Your task to perform on an android device: toggle wifi Image 0: 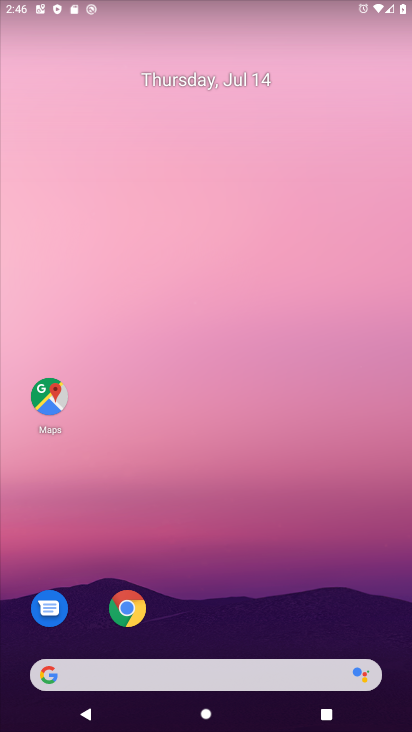
Step 0: drag from (247, 718) to (251, 79)
Your task to perform on an android device: toggle wifi Image 1: 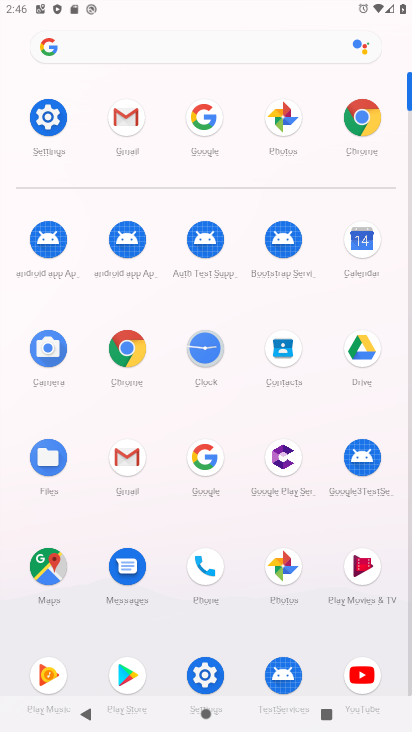
Step 1: click (45, 114)
Your task to perform on an android device: toggle wifi Image 2: 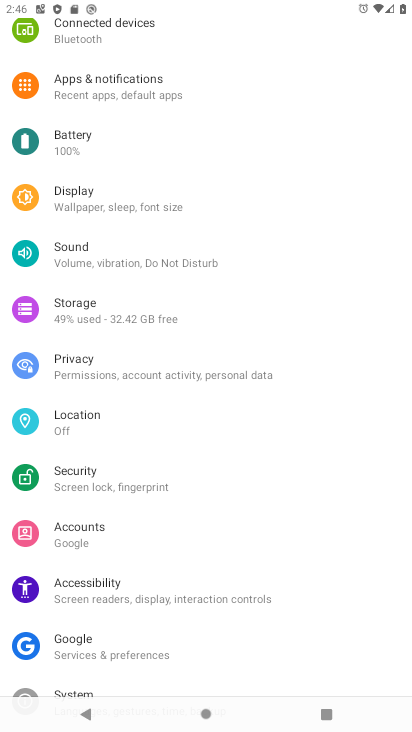
Step 2: drag from (122, 125) to (122, 430)
Your task to perform on an android device: toggle wifi Image 3: 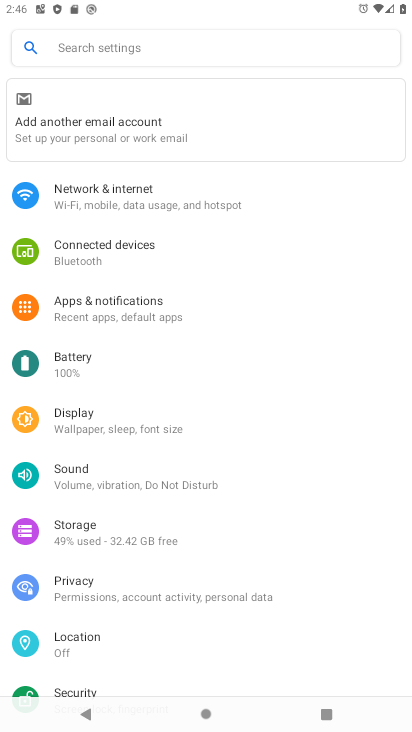
Step 3: click (112, 193)
Your task to perform on an android device: toggle wifi Image 4: 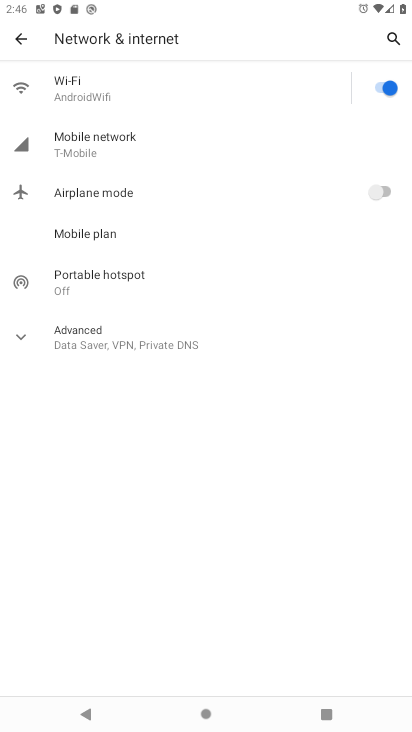
Step 4: click (382, 83)
Your task to perform on an android device: toggle wifi Image 5: 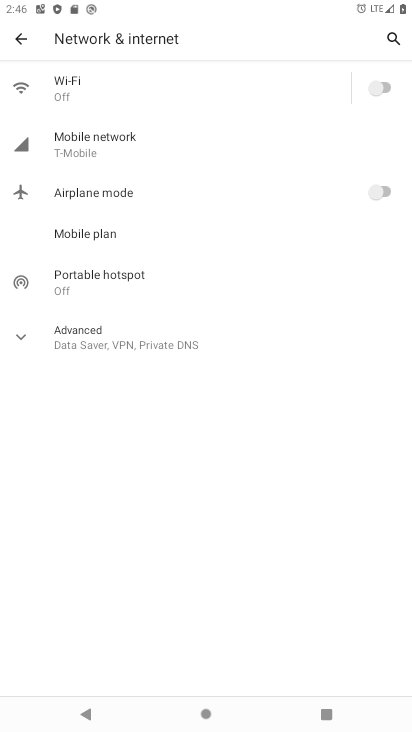
Step 5: task complete